Your task to perform on an android device: Go to Reddit.com Image 0: 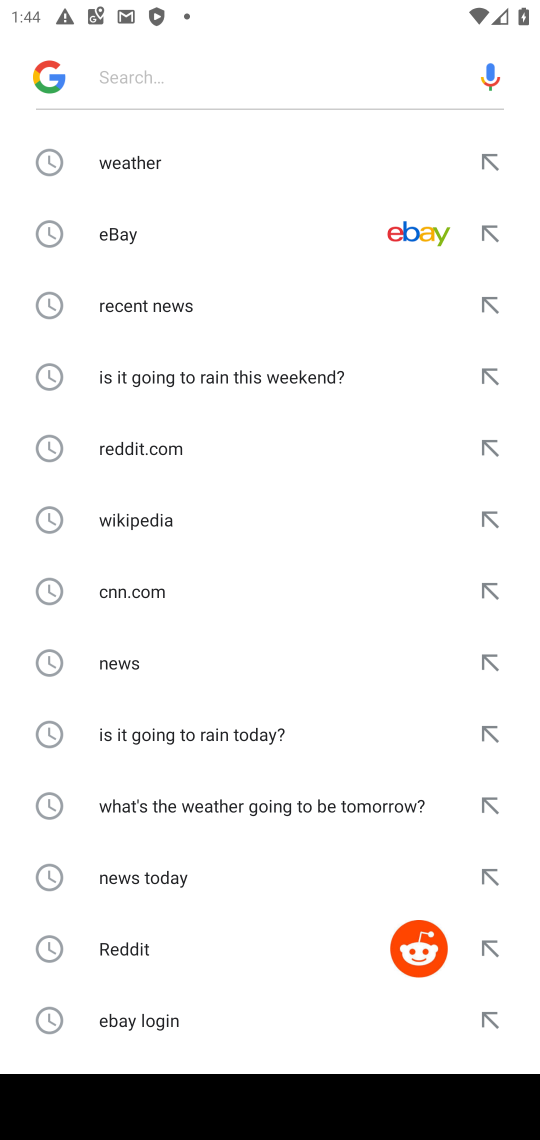
Step 0: press home button
Your task to perform on an android device: Go to Reddit.com Image 1: 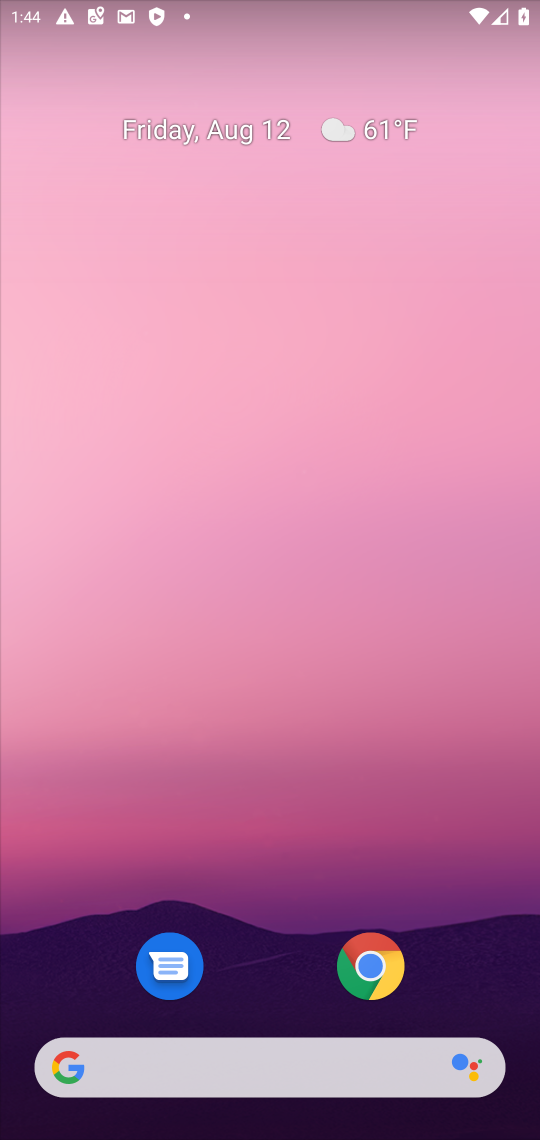
Step 1: click (378, 967)
Your task to perform on an android device: Go to Reddit.com Image 2: 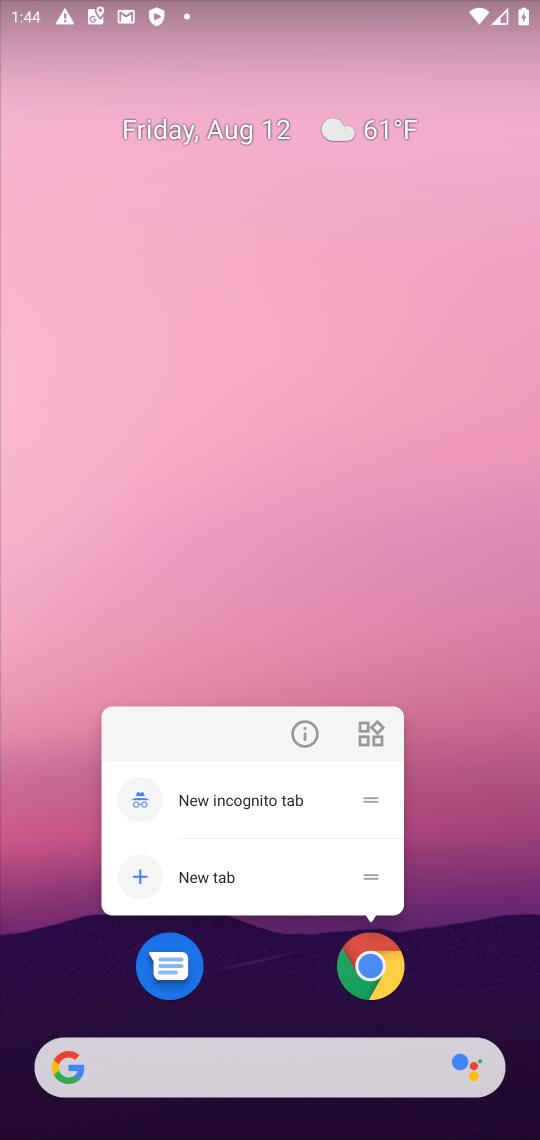
Step 2: click (301, 990)
Your task to perform on an android device: Go to Reddit.com Image 3: 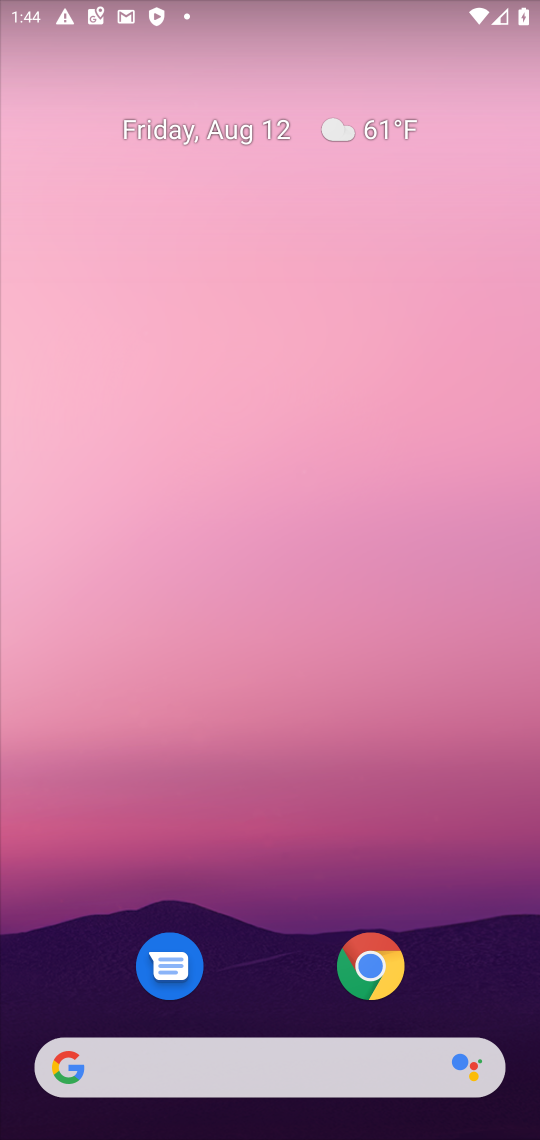
Step 3: drag from (276, 980) to (308, 185)
Your task to perform on an android device: Go to Reddit.com Image 4: 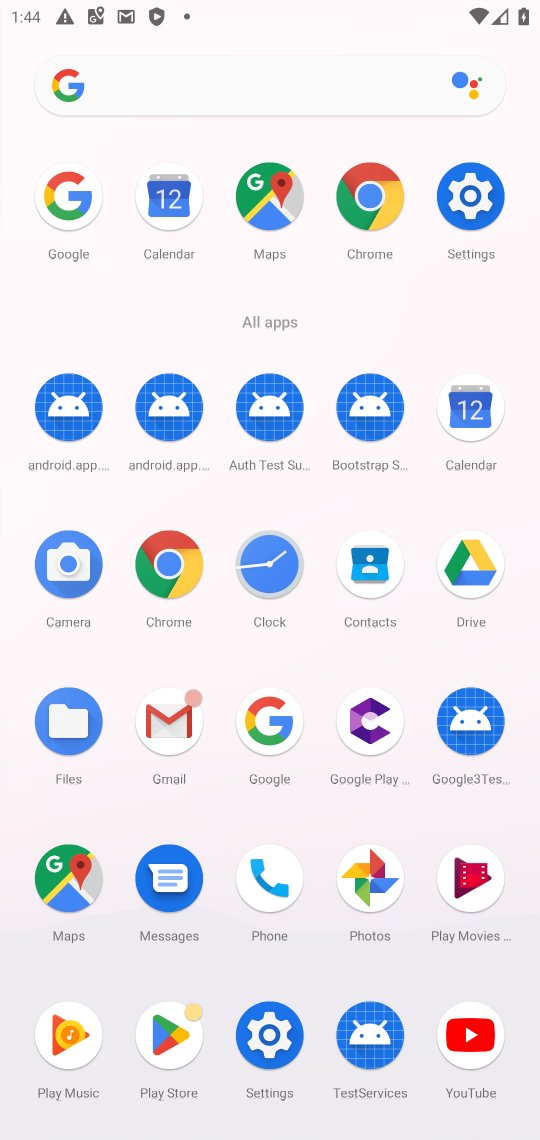
Step 4: click (160, 563)
Your task to perform on an android device: Go to Reddit.com Image 5: 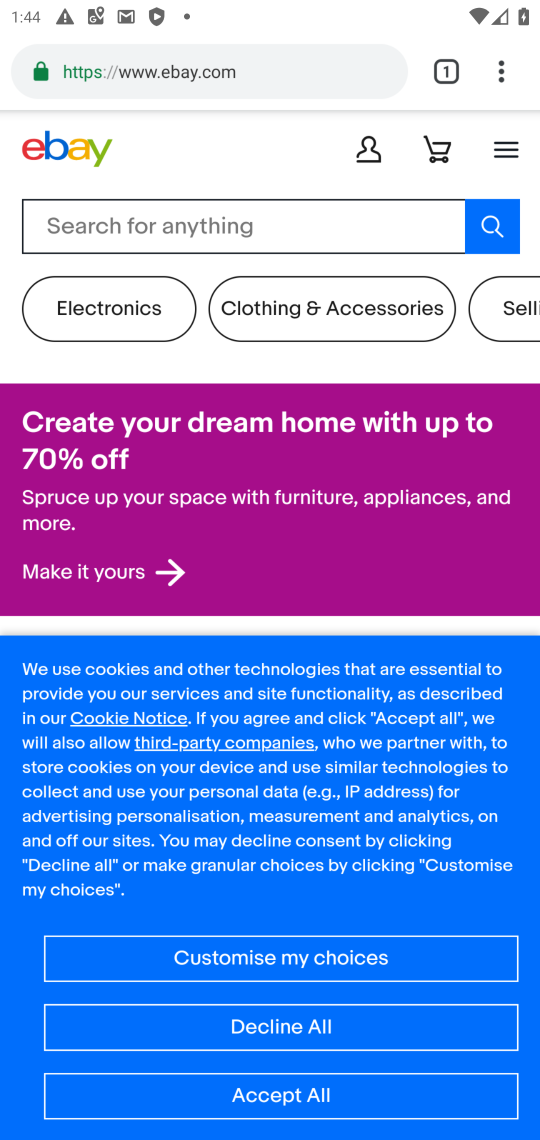
Step 5: click (346, 80)
Your task to perform on an android device: Go to Reddit.com Image 6: 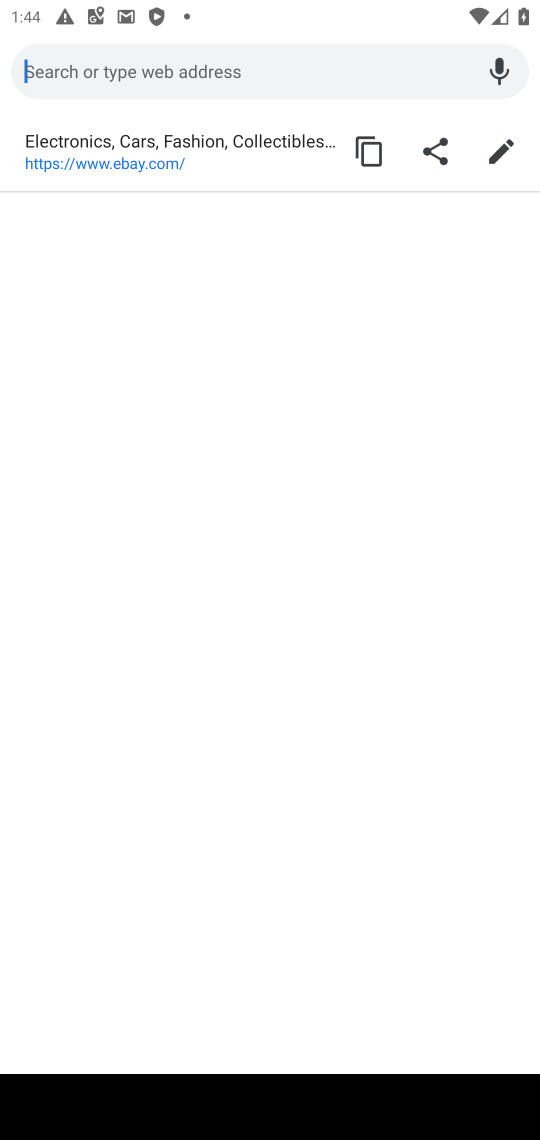
Step 6: type "reddit.com"
Your task to perform on an android device: Go to Reddit.com Image 7: 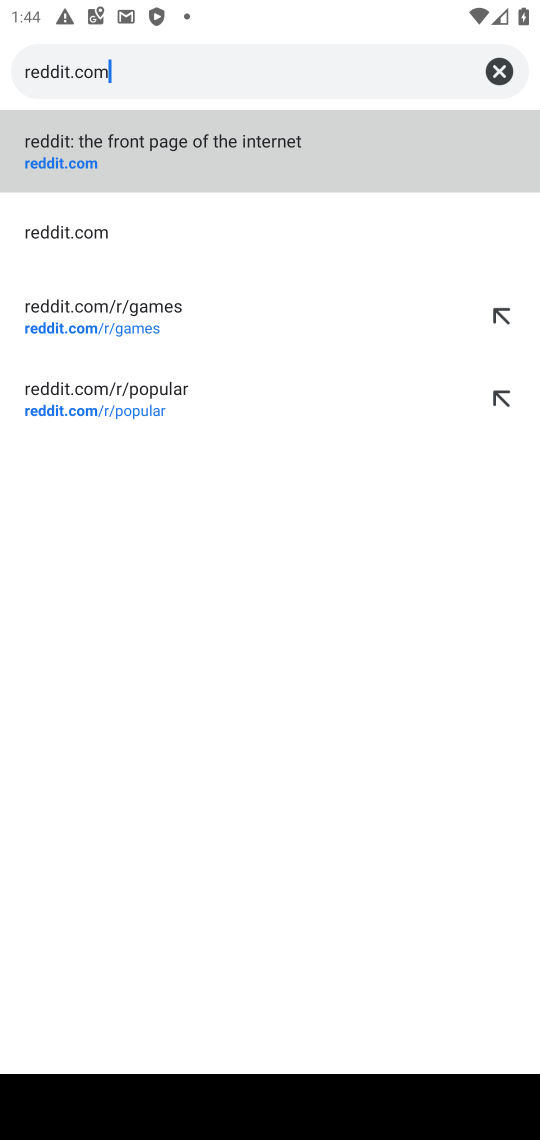
Step 7: click (54, 156)
Your task to perform on an android device: Go to Reddit.com Image 8: 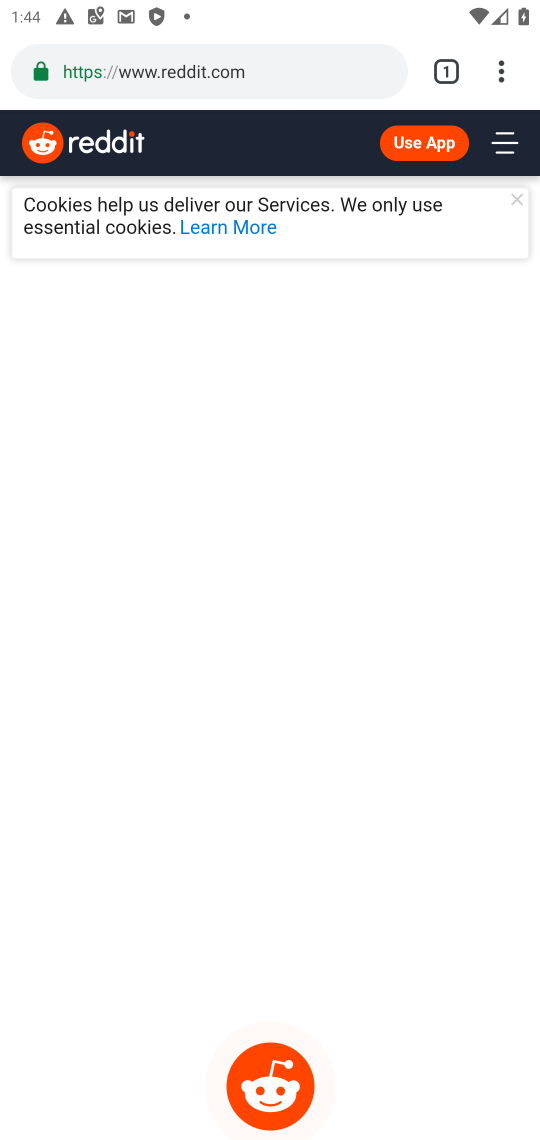
Step 8: task complete